Your task to perform on an android device: Is it going to rain today? Image 0: 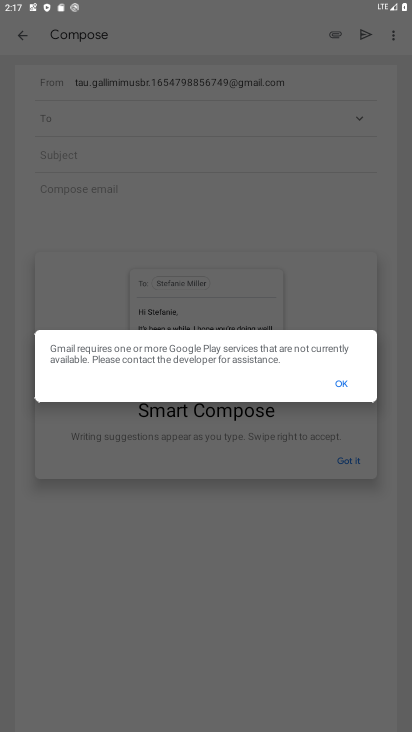
Step 0: press home button
Your task to perform on an android device: Is it going to rain today? Image 1: 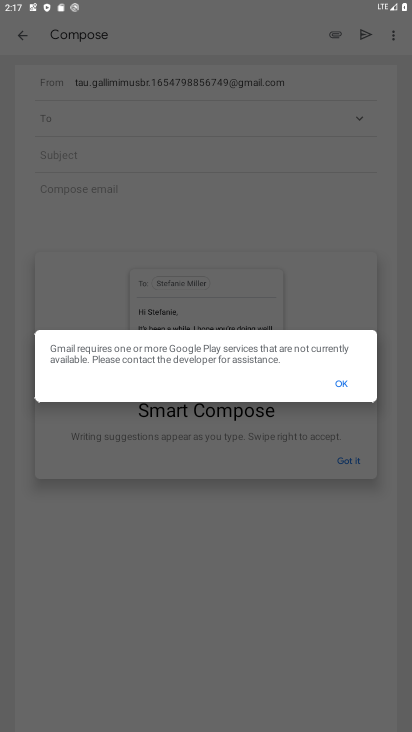
Step 1: press home button
Your task to perform on an android device: Is it going to rain today? Image 2: 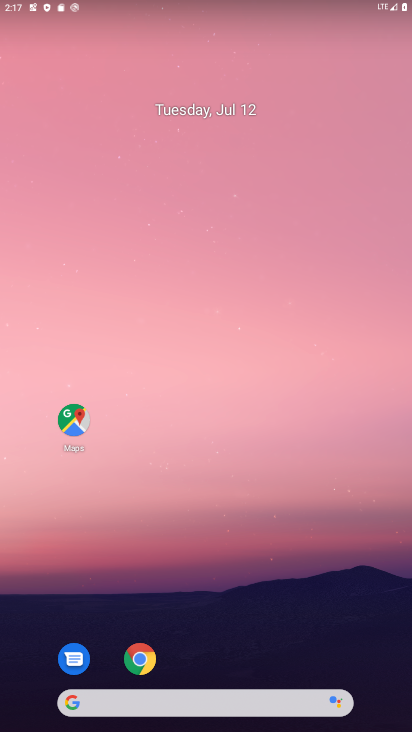
Step 2: drag from (206, 720) to (187, 157)
Your task to perform on an android device: Is it going to rain today? Image 3: 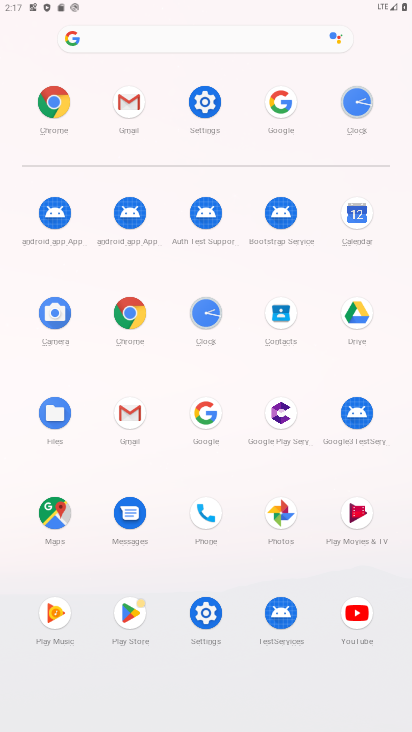
Step 3: click (205, 417)
Your task to perform on an android device: Is it going to rain today? Image 4: 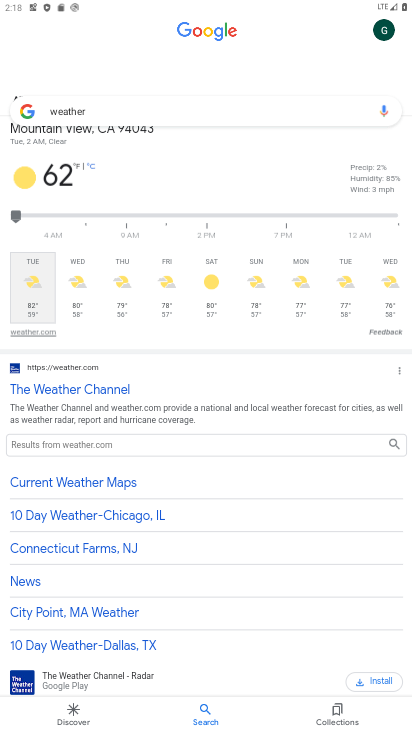
Step 4: task complete